Your task to perform on an android device: What's the weather going to be tomorrow? Image 0: 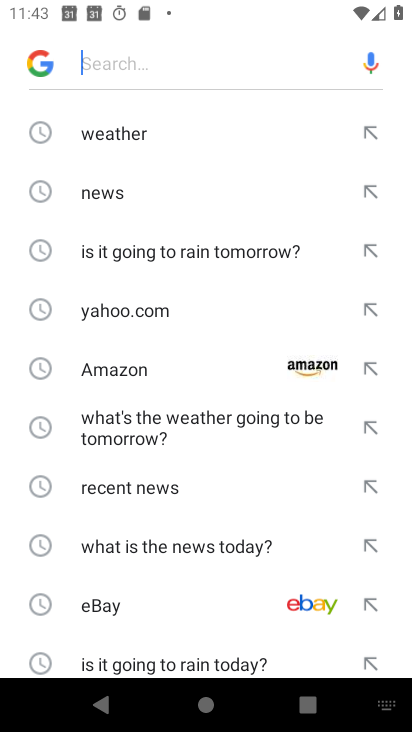
Step 0: press back button
Your task to perform on an android device: What's the weather going to be tomorrow? Image 1: 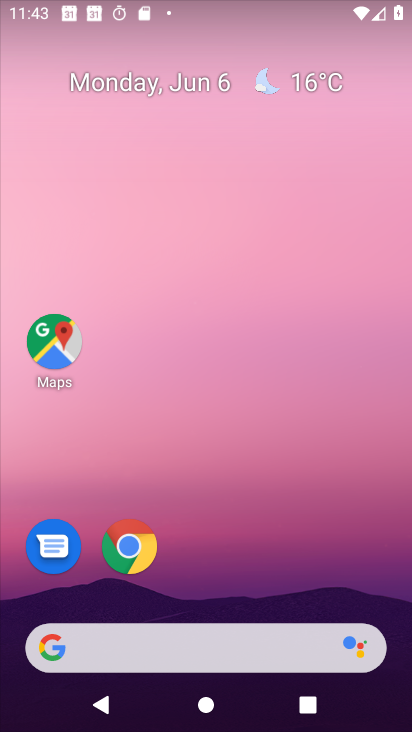
Step 1: click (274, 79)
Your task to perform on an android device: What's the weather going to be tomorrow? Image 2: 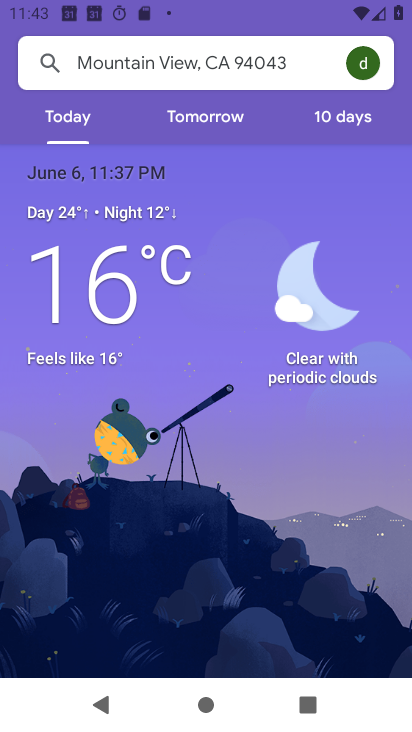
Step 2: task complete